Your task to perform on an android device: Open settings Image 0: 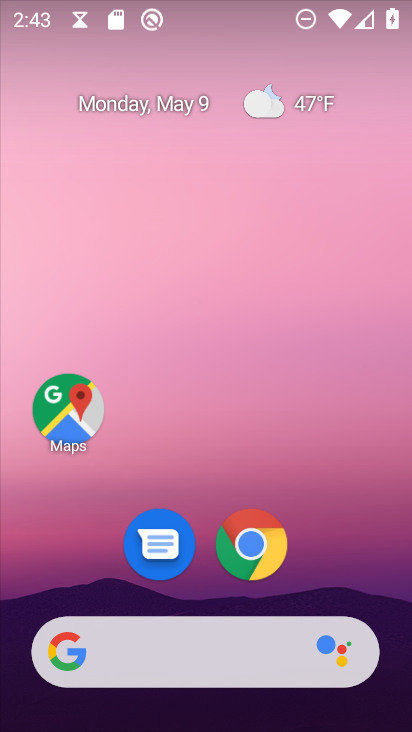
Step 0: drag from (363, 466) to (351, 74)
Your task to perform on an android device: Open settings Image 1: 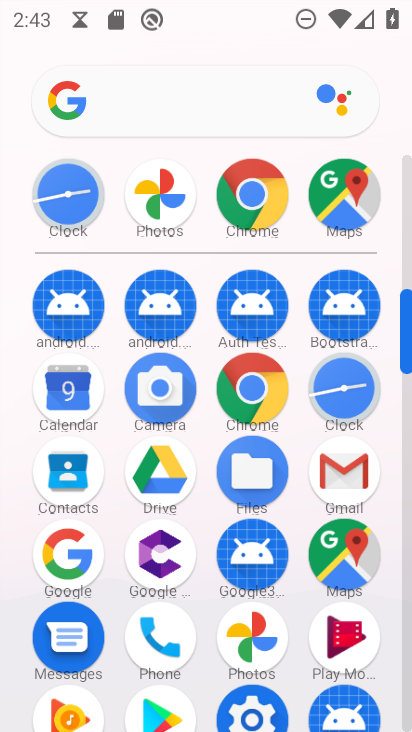
Step 1: click (256, 730)
Your task to perform on an android device: Open settings Image 2: 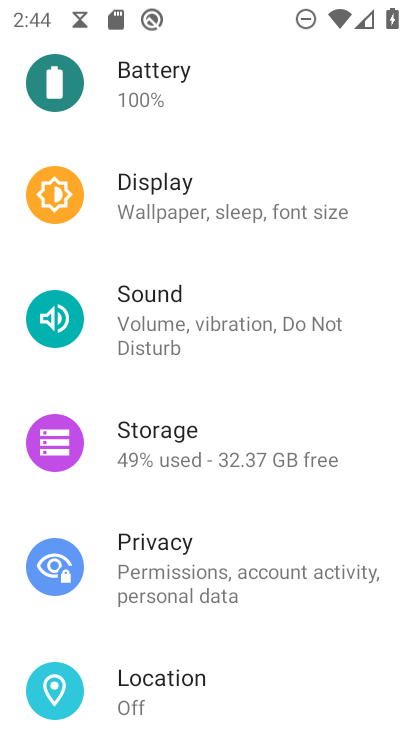
Step 2: task complete